Your task to perform on an android device: Show me recent news Image 0: 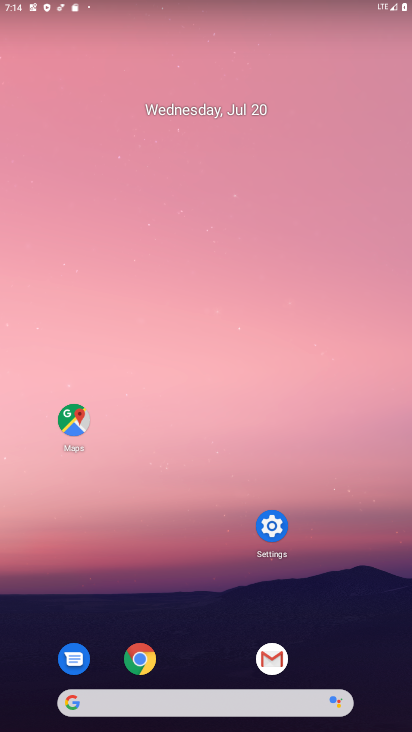
Step 0: click (167, 708)
Your task to perform on an android device: Show me recent news Image 1: 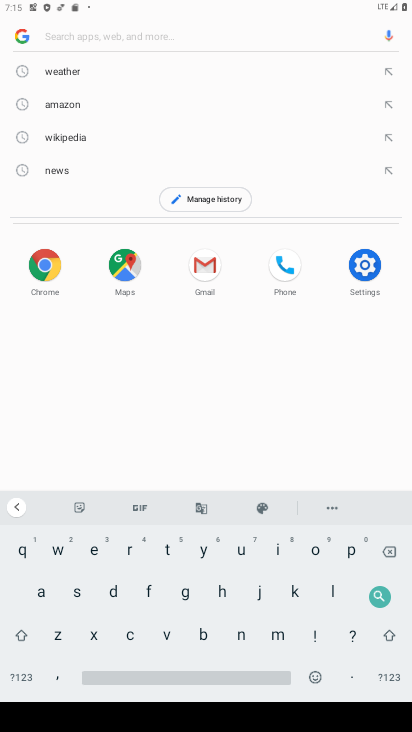
Step 1: click (128, 548)
Your task to perform on an android device: Show me recent news Image 2: 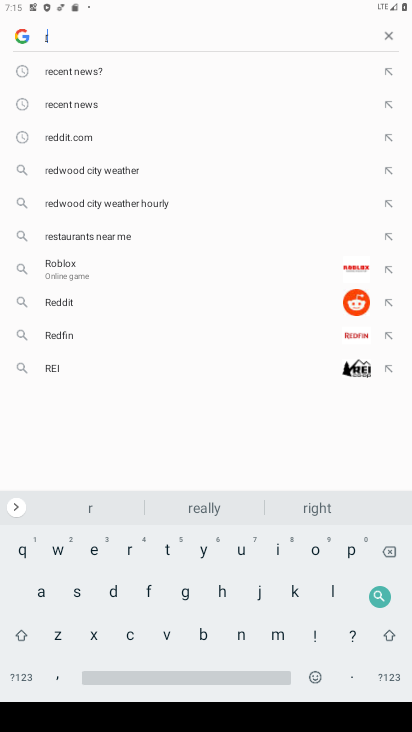
Step 2: click (96, 548)
Your task to perform on an android device: Show me recent news Image 3: 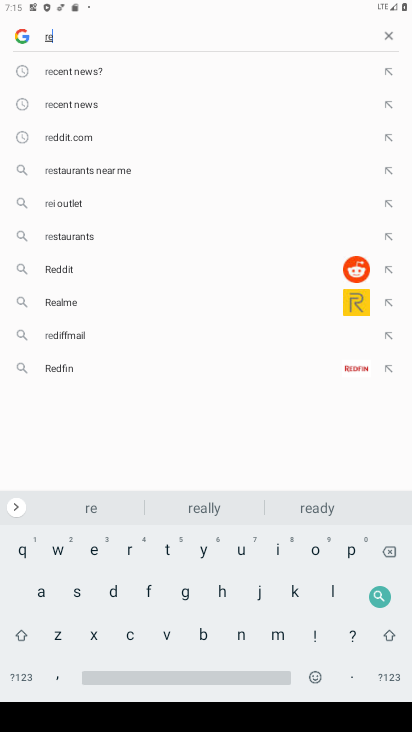
Step 3: click (75, 98)
Your task to perform on an android device: Show me recent news Image 4: 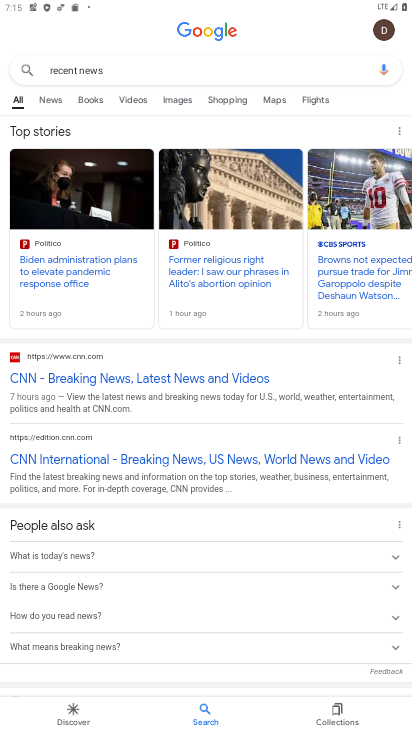
Step 4: task complete